Your task to perform on an android device: Go to privacy settings Image 0: 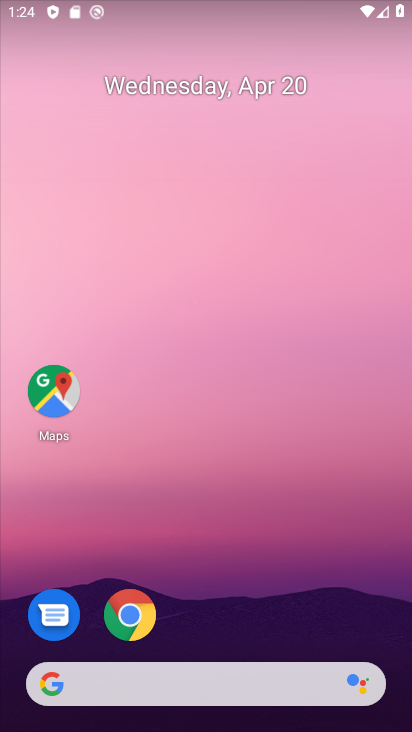
Step 0: click (125, 626)
Your task to perform on an android device: Go to privacy settings Image 1: 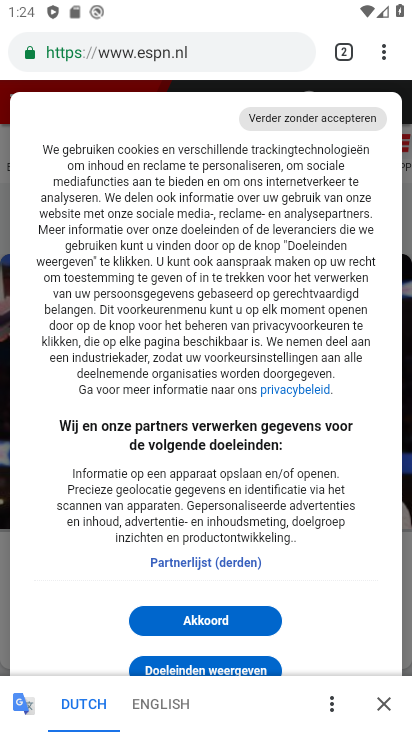
Step 1: click (378, 53)
Your task to perform on an android device: Go to privacy settings Image 2: 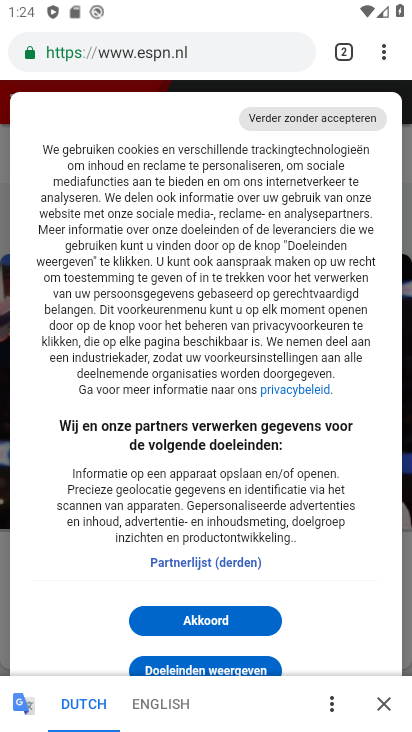
Step 2: click (382, 52)
Your task to perform on an android device: Go to privacy settings Image 3: 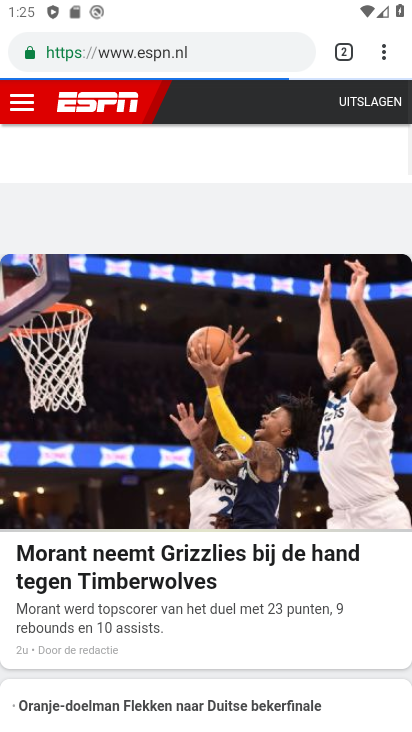
Step 3: click (382, 52)
Your task to perform on an android device: Go to privacy settings Image 4: 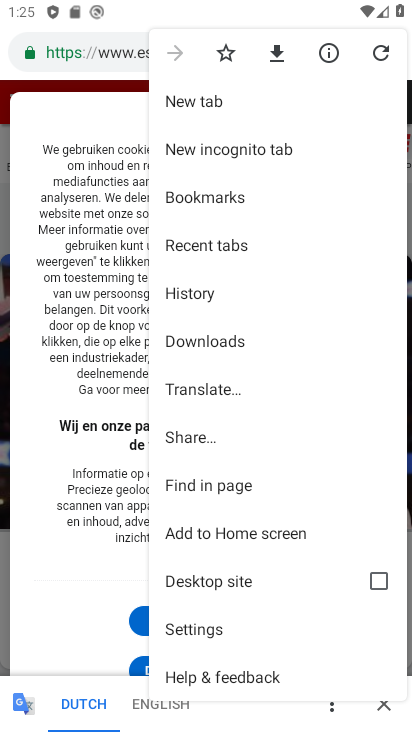
Step 4: click (231, 625)
Your task to perform on an android device: Go to privacy settings Image 5: 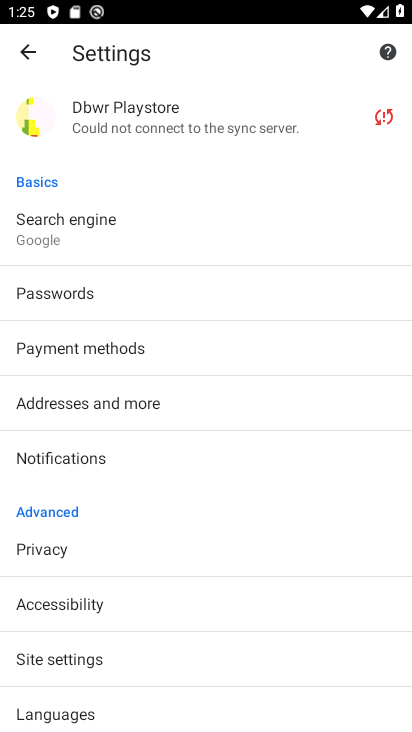
Step 5: click (74, 550)
Your task to perform on an android device: Go to privacy settings Image 6: 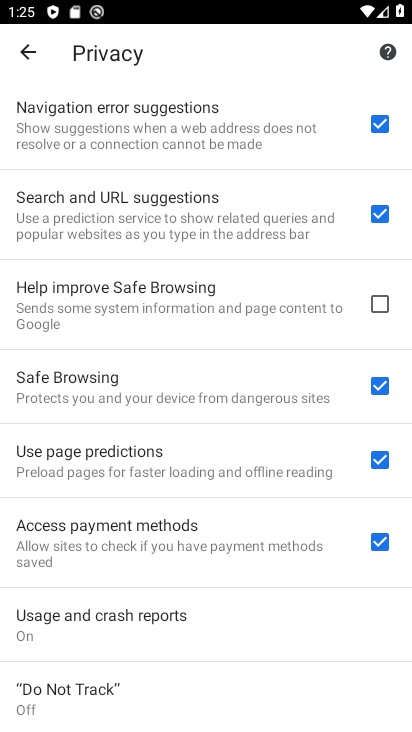
Step 6: task complete